Your task to perform on an android device: Empty the shopping cart on bestbuy. Search for "asus zenbook" on bestbuy, select the first entry, and add it to the cart. Image 0: 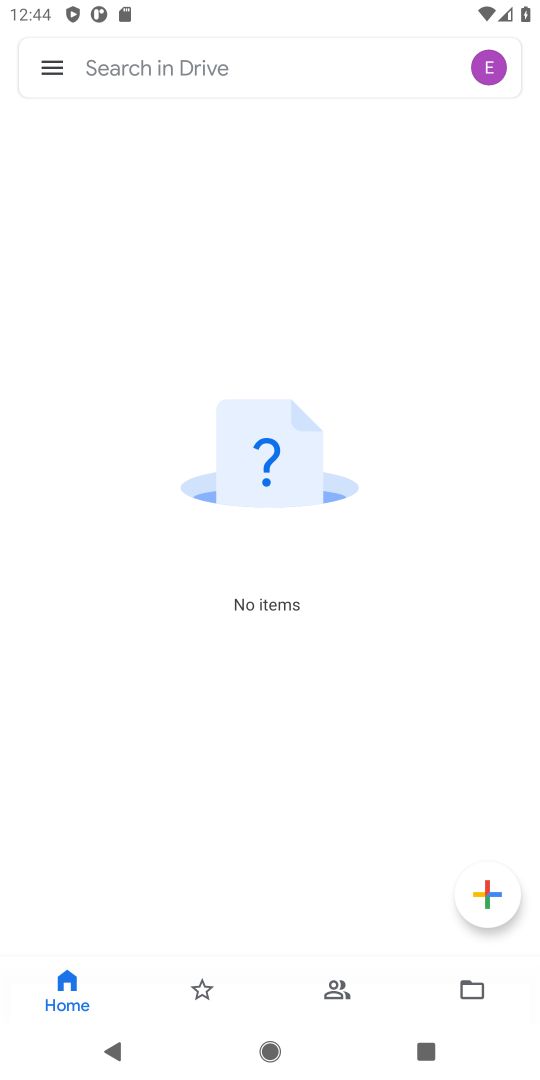
Step 0: press home button
Your task to perform on an android device: Empty the shopping cart on bestbuy. Search for "asus zenbook" on bestbuy, select the first entry, and add it to the cart. Image 1: 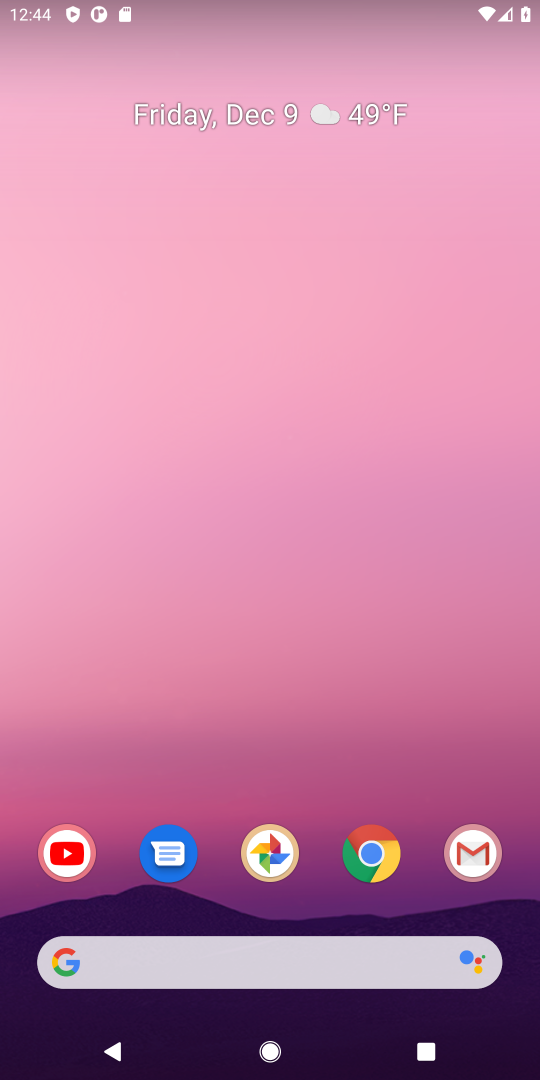
Step 1: drag from (215, 947) to (331, 204)
Your task to perform on an android device: Empty the shopping cart on bestbuy. Search for "asus zenbook" on bestbuy, select the first entry, and add it to the cart. Image 2: 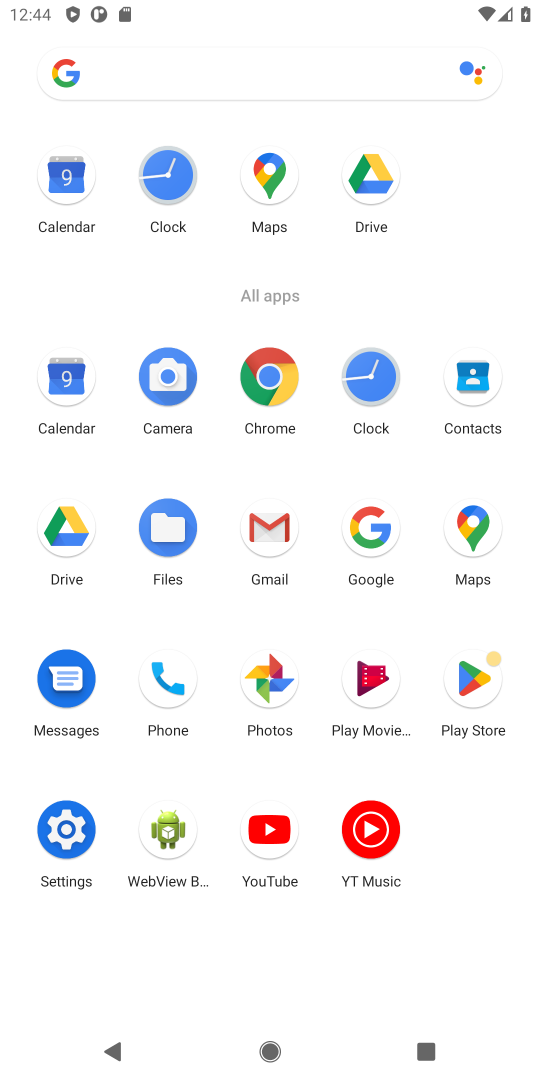
Step 2: click (383, 525)
Your task to perform on an android device: Empty the shopping cart on bestbuy. Search for "asus zenbook" on bestbuy, select the first entry, and add it to the cart. Image 3: 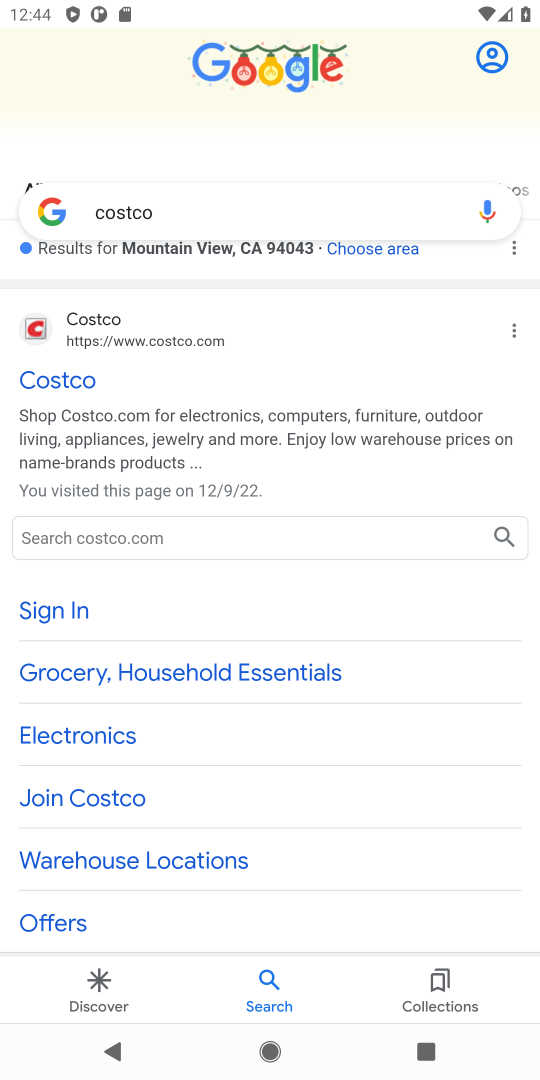
Step 3: click (94, 208)
Your task to perform on an android device: Empty the shopping cart on bestbuy. Search for "asus zenbook" on bestbuy, select the first entry, and add it to the cart. Image 4: 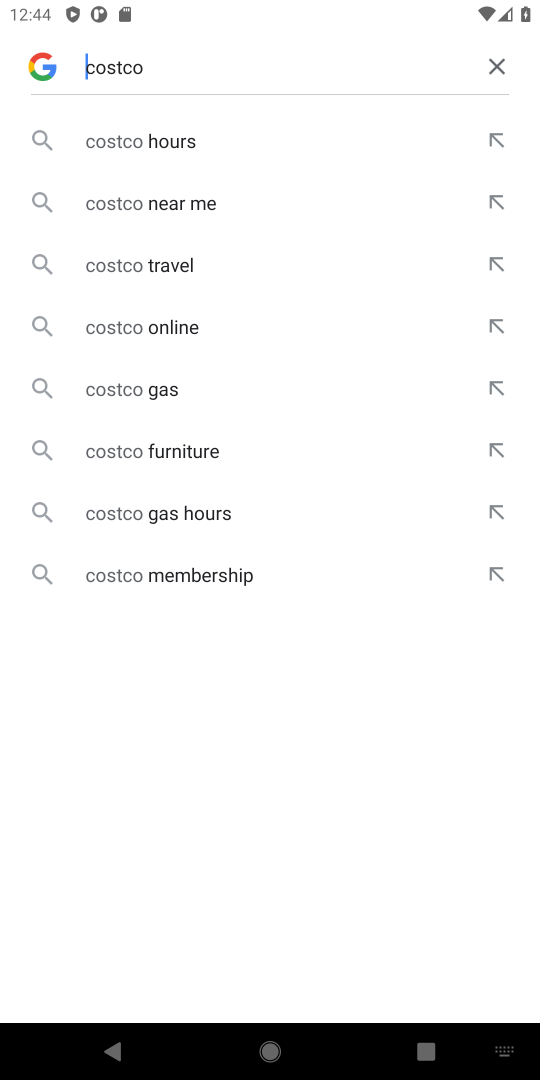
Step 4: click (498, 66)
Your task to perform on an android device: Empty the shopping cart on bestbuy. Search for "asus zenbook" on bestbuy, select the first entry, and add it to the cart. Image 5: 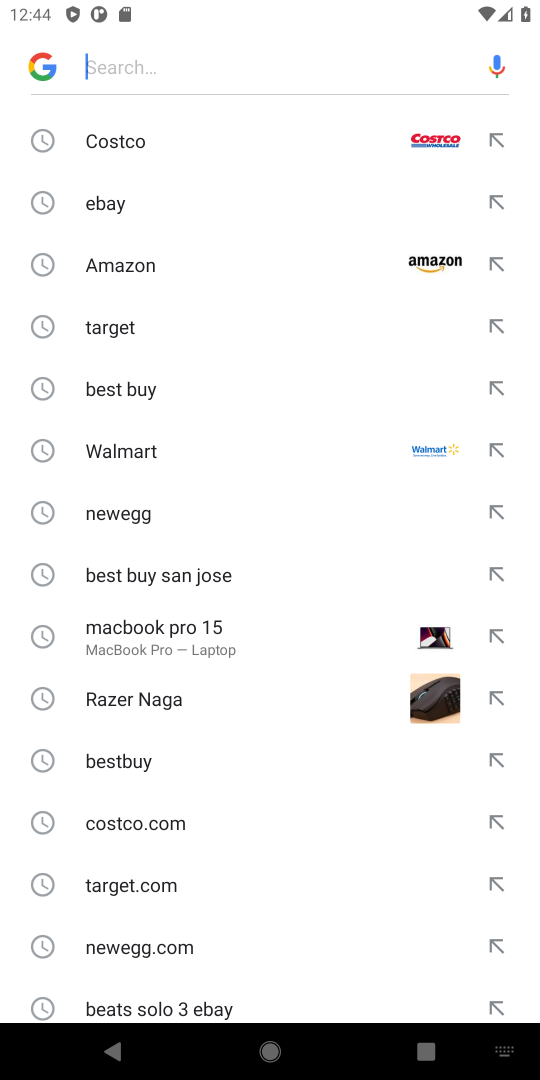
Step 5: click (108, 391)
Your task to perform on an android device: Empty the shopping cart on bestbuy. Search for "asus zenbook" on bestbuy, select the first entry, and add it to the cart. Image 6: 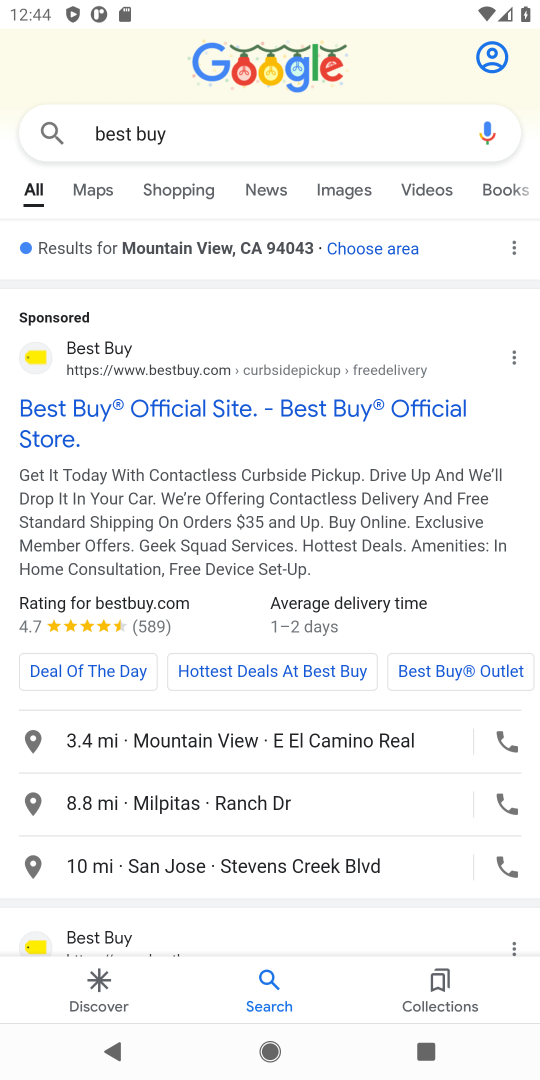
Step 6: click (173, 418)
Your task to perform on an android device: Empty the shopping cart on bestbuy. Search for "asus zenbook" on bestbuy, select the first entry, and add it to the cart. Image 7: 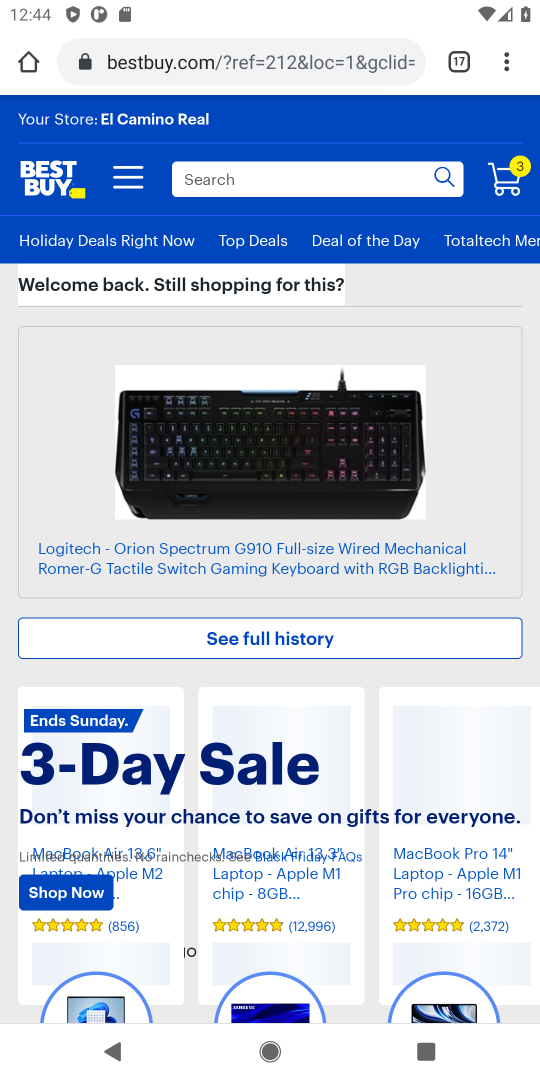
Step 7: click (498, 184)
Your task to perform on an android device: Empty the shopping cart on bestbuy. Search for "asus zenbook" on bestbuy, select the first entry, and add it to the cart. Image 8: 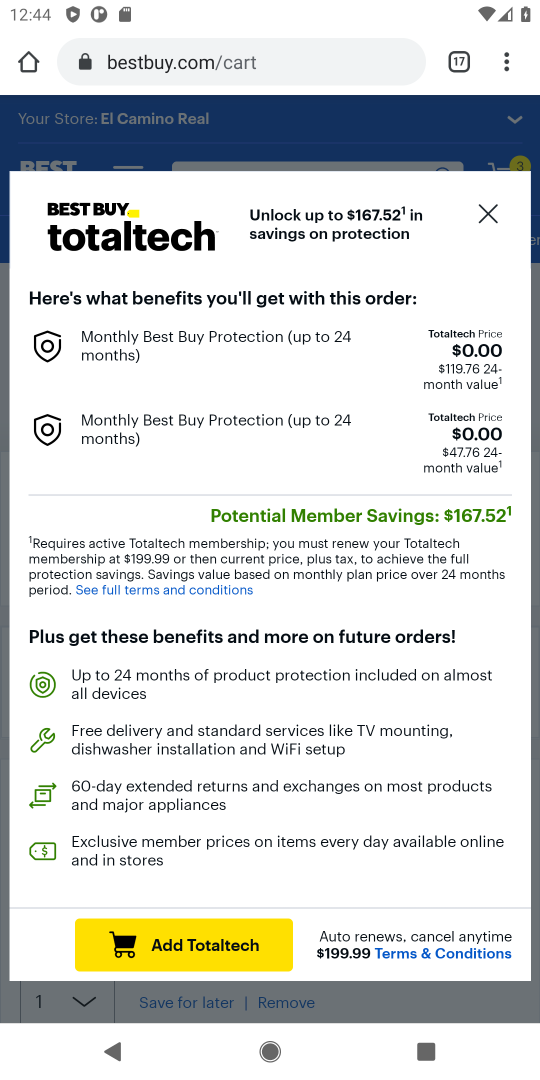
Step 8: click (484, 202)
Your task to perform on an android device: Empty the shopping cart on bestbuy. Search for "asus zenbook" on bestbuy, select the first entry, and add it to the cart. Image 9: 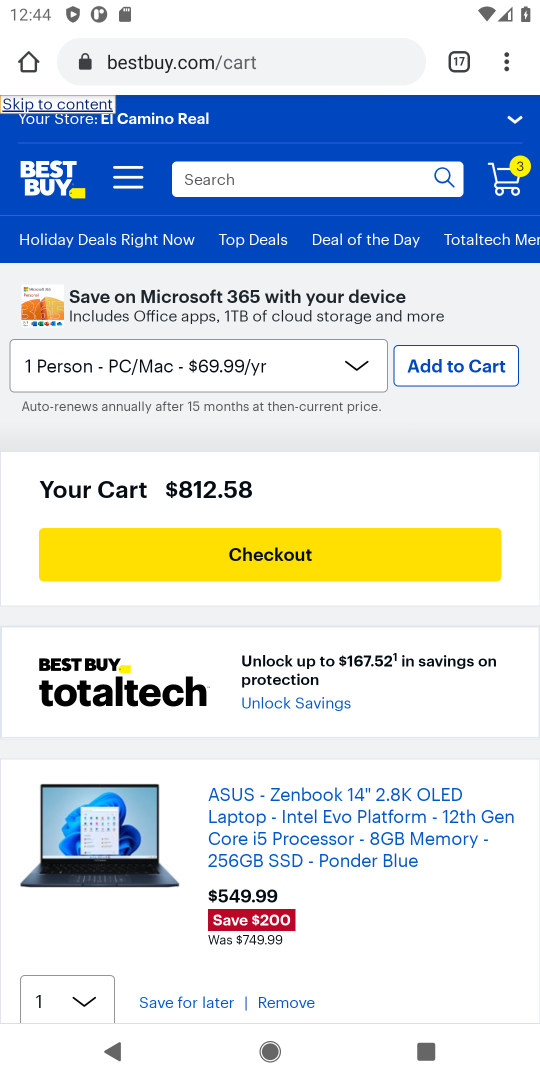
Step 9: drag from (361, 810) to (383, 281)
Your task to perform on an android device: Empty the shopping cart on bestbuy. Search for "asus zenbook" on bestbuy, select the first entry, and add it to the cart. Image 10: 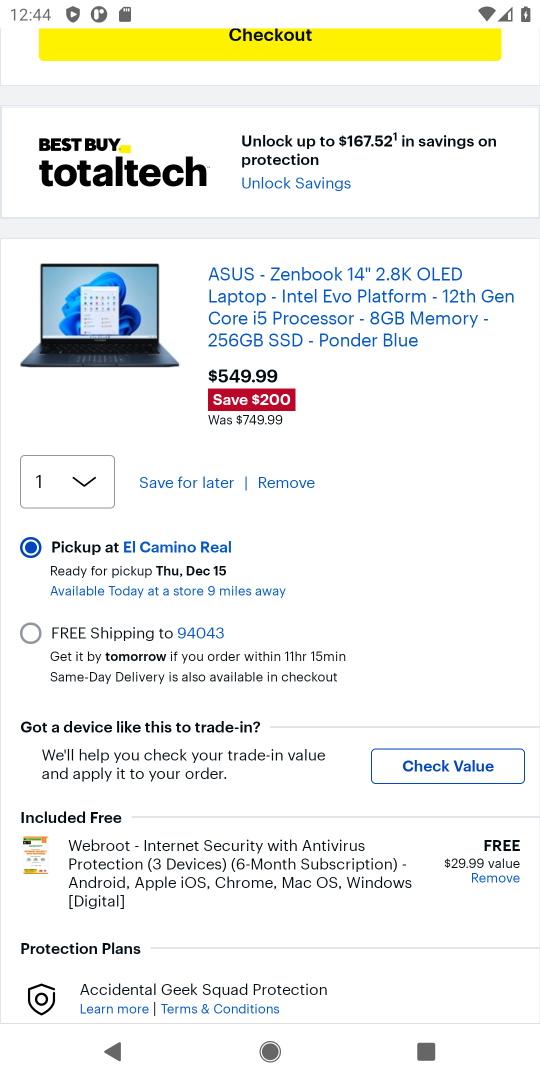
Step 10: click (274, 482)
Your task to perform on an android device: Empty the shopping cart on bestbuy. Search for "asus zenbook" on bestbuy, select the first entry, and add it to the cart. Image 11: 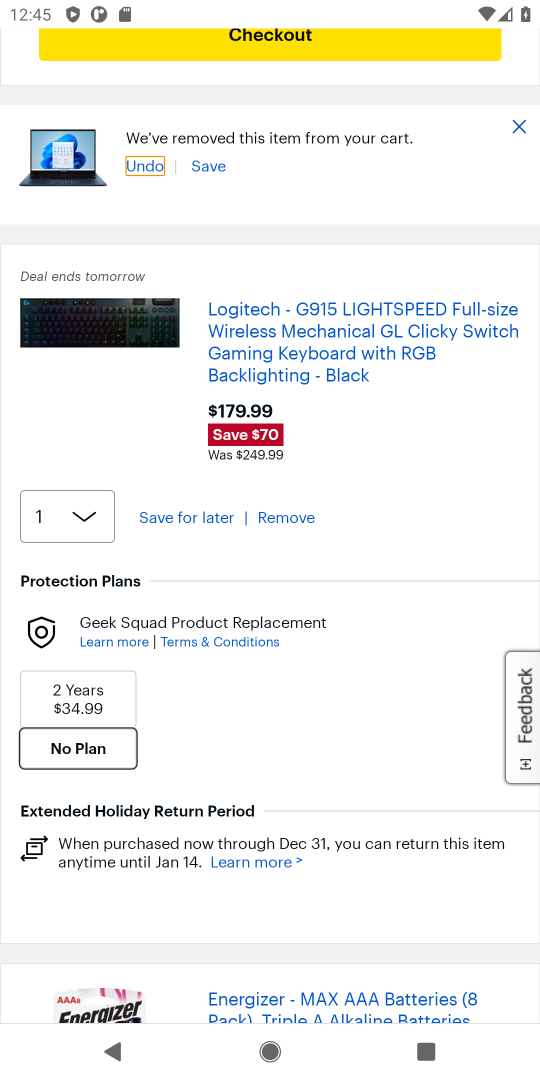
Step 11: click (287, 519)
Your task to perform on an android device: Empty the shopping cart on bestbuy. Search for "asus zenbook" on bestbuy, select the first entry, and add it to the cart. Image 12: 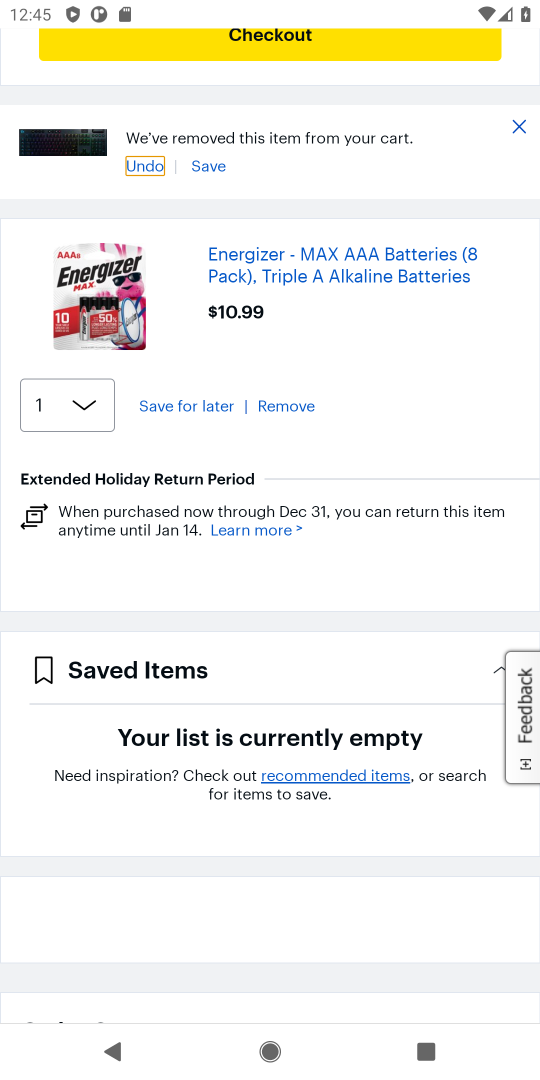
Step 12: click (284, 406)
Your task to perform on an android device: Empty the shopping cart on bestbuy. Search for "asus zenbook" on bestbuy, select the first entry, and add it to the cart. Image 13: 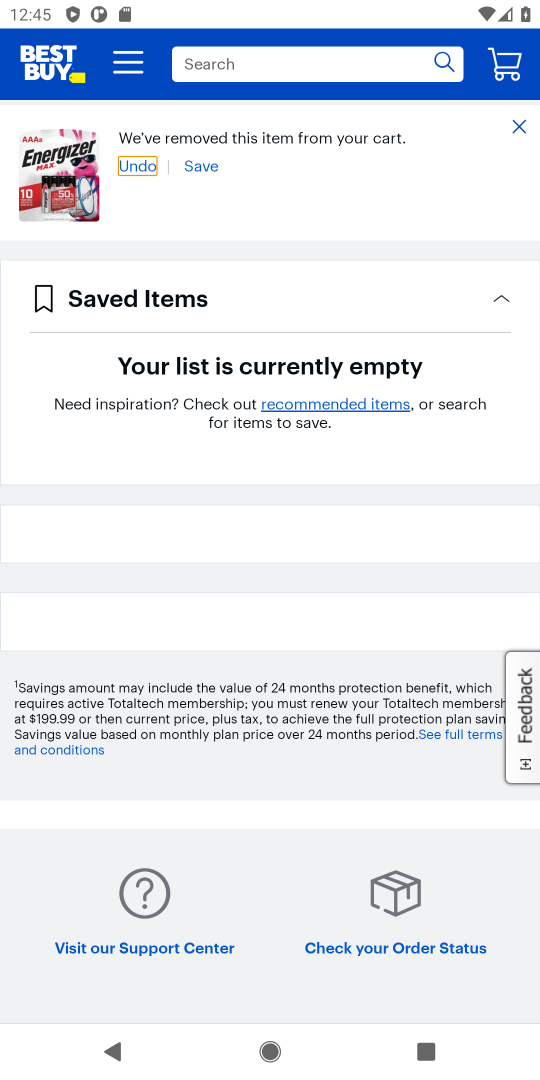
Step 13: click (275, 61)
Your task to perform on an android device: Empty the shopping cart on bestbuy. Search for "asus zenbook" on bestbuy, select the first entry, and add it to the cart. Image 14: 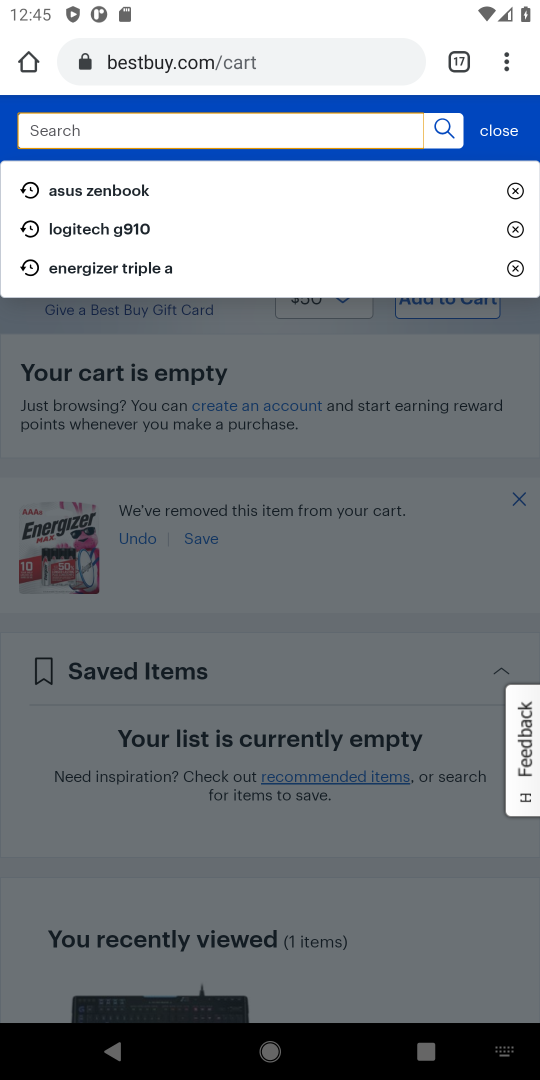
Step 14: click (144, 128)
Your task to perform on an android device: Empty the shopping cart on bestbuy. Search for "asus zenbook" on bestbuy, select the first entry, and add it to the cart. Image 15: 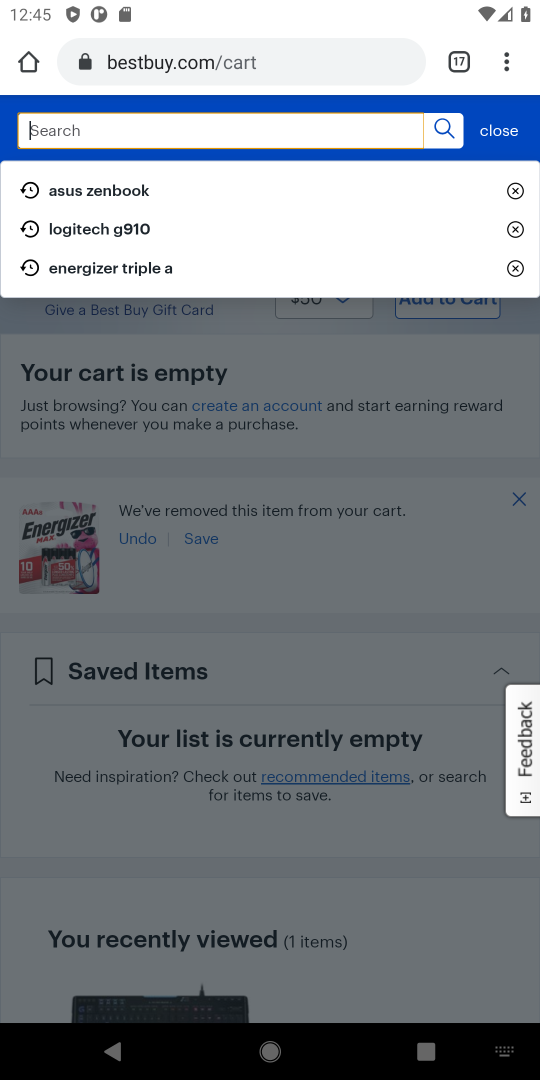
Step 15: type "asus zenbook"
Your task to perform on an android device: Empty the shopping cart on bestbuy. Search for "asus zenbook" on bestbuy, select the first entry, and add it to the cart. Image 16: 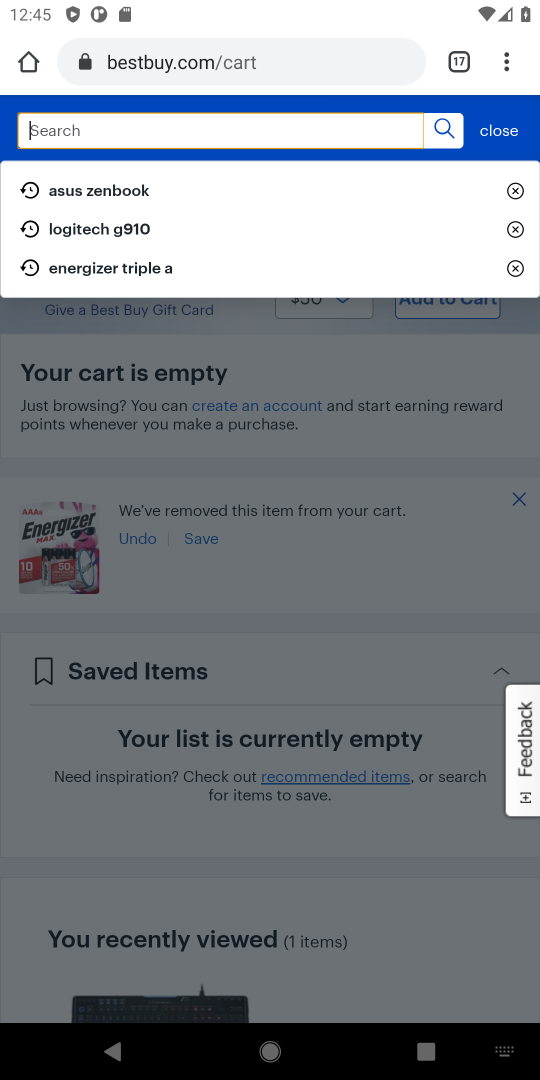
Step 16: click (448, 134)
Your task to perform on an android device: Empty the shopping cart on bestbuy. Search for "asus zenbook" on bestbuy, select the first entry, and add it to the cart. Image 17: 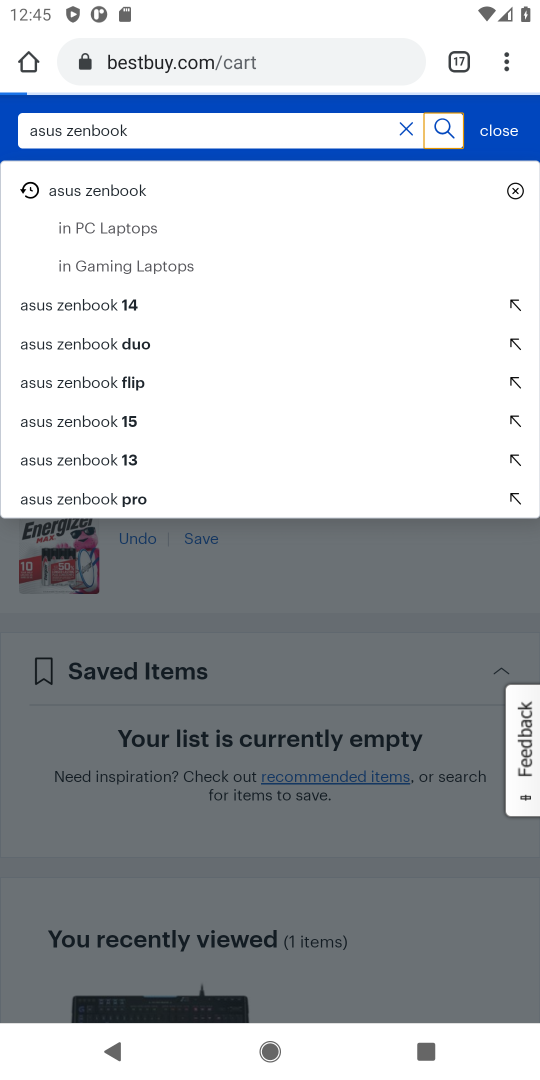
Step 17: click (93, 182)
Your task to perform on an android device: Empty the shopping cart on bestbuy. Search for "asus zenbook" on bestbuy, select the first entry, and add it to the cart. Image 18: 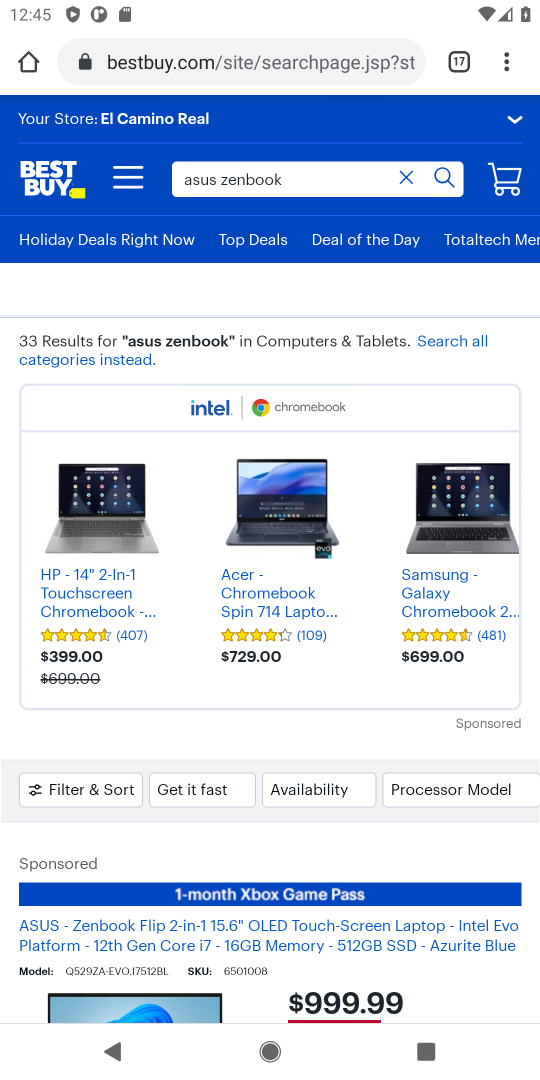
Step 18: drag from (281, 844) to (347, 297)
Your task to perform on an android device: Empty the shopping cart on bestbuy. Search for "asus zenbook" on bestbuy, select the first entry, and add it to the cart. Image 19: 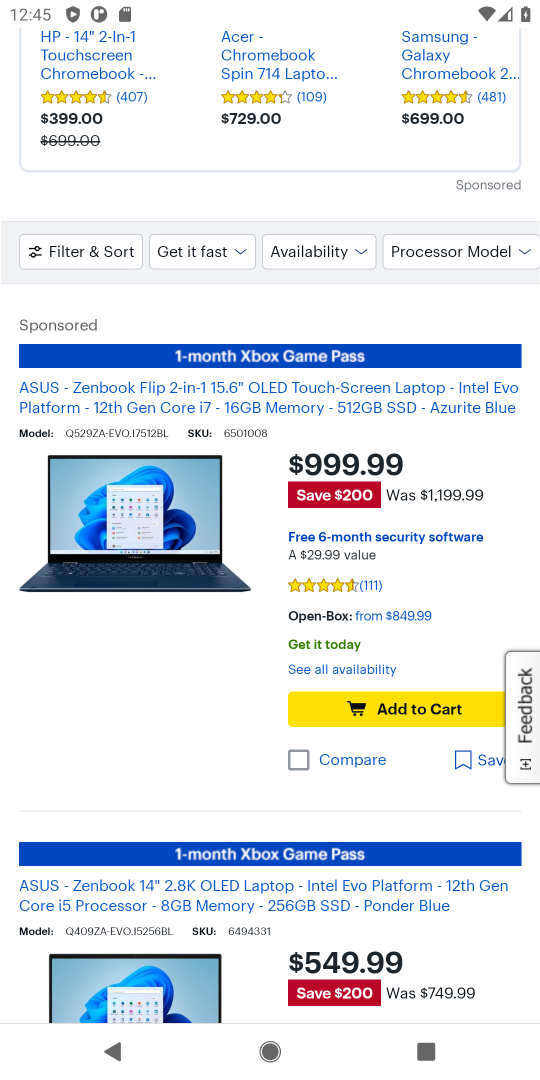
Step 19: click (407, 710)
Your task to perform on an android device: Empty the shopping cart on bestbuy. Search for "asus zenbook" on bestbuy, select the first entry, and add it to the cart. Image 20: 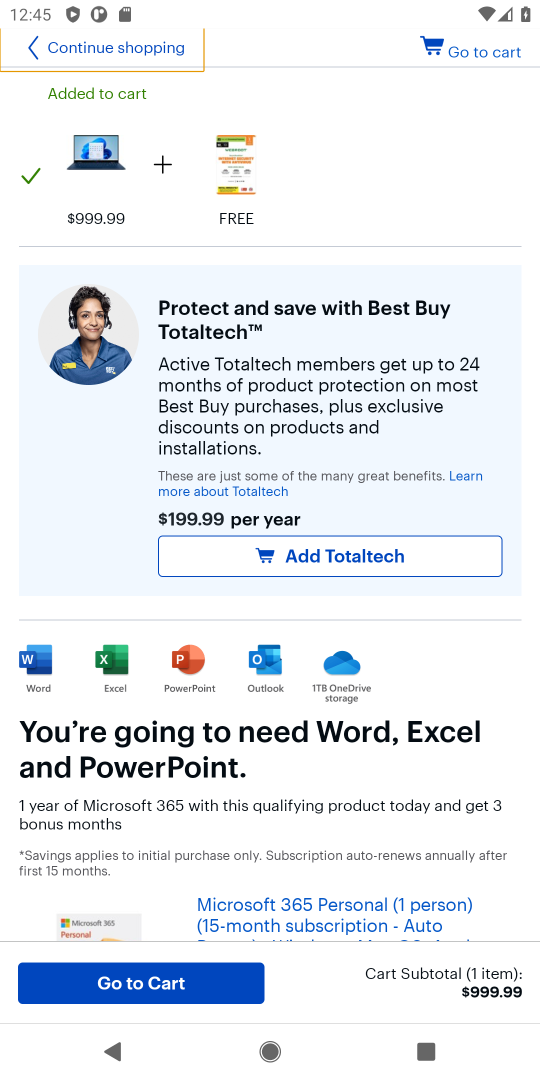
Step 20: click (111, 981)
Your task to perform on an android device: Empty the shopping cart on bestbuy. Search for "asus zenbook" on bestbuy, select the first entry, and add it to the cart. Image 21: 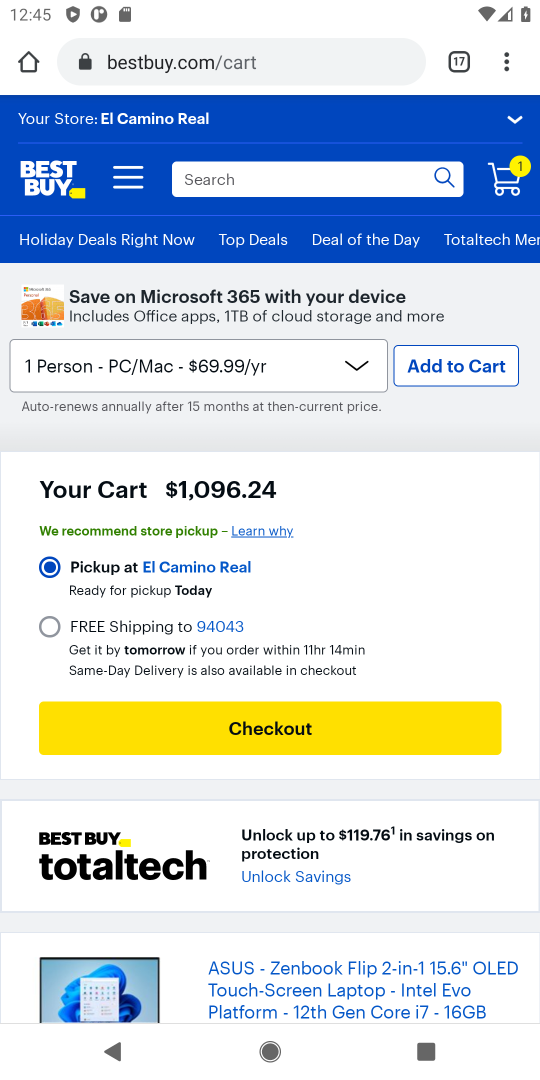
Step 21: click (282, 728)
Your task to perform on an android device: Empty the shopping cart on bestbuy. Search for "asus zenbook" on bestbuy, select the first entry, and add it to the cart. Image 22: 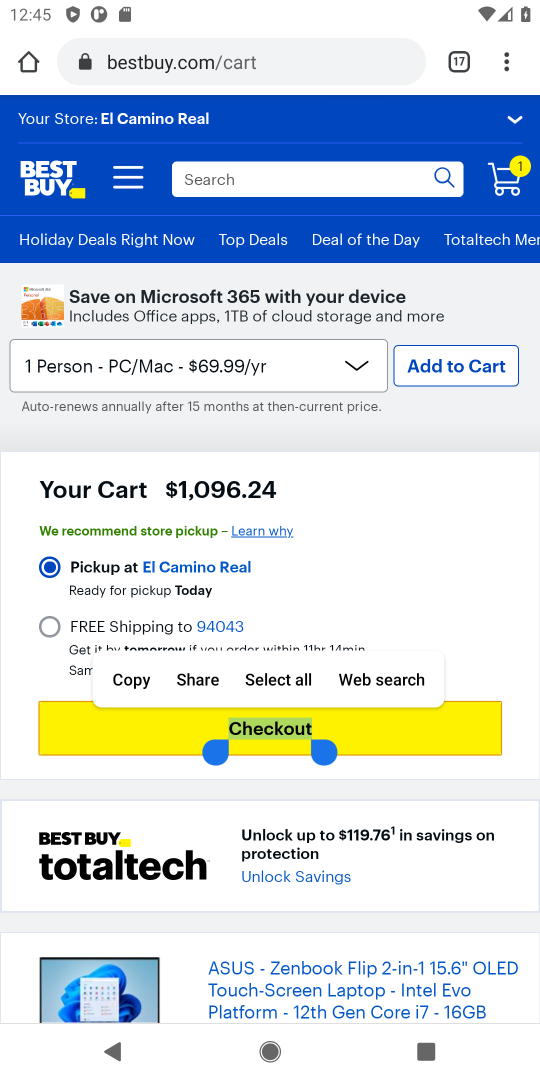
Step 22: click (285, 738)
Your task to perform on an android device: Empty the shopping cart on bestbuy. Search for "asus zenbook" on bestbuy, select the first entry, and add it to the cart. Image 23: 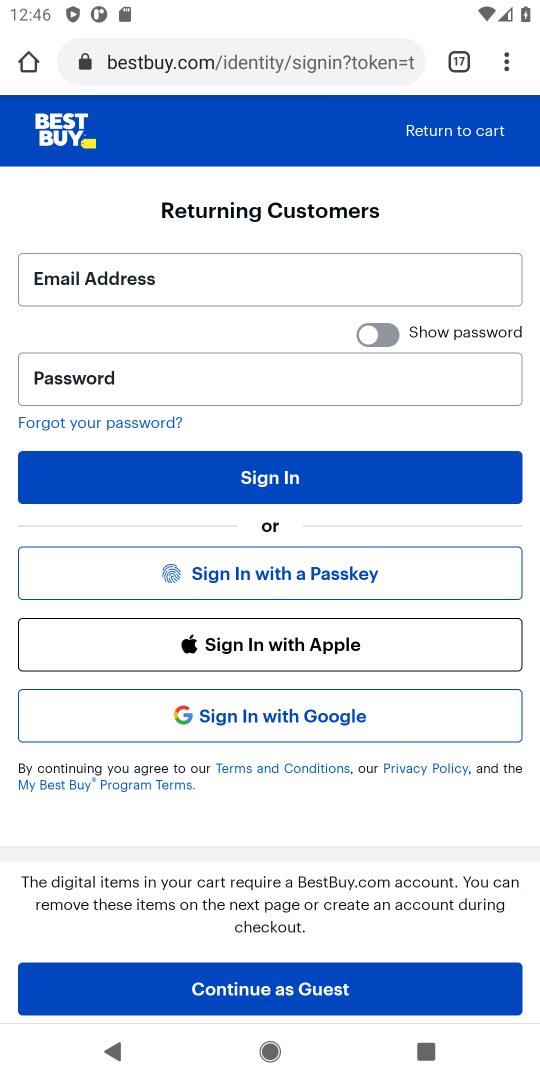
Step 23: task complete